Your task to perform on an android device: make emails show in primary in the gmail app Image 0: 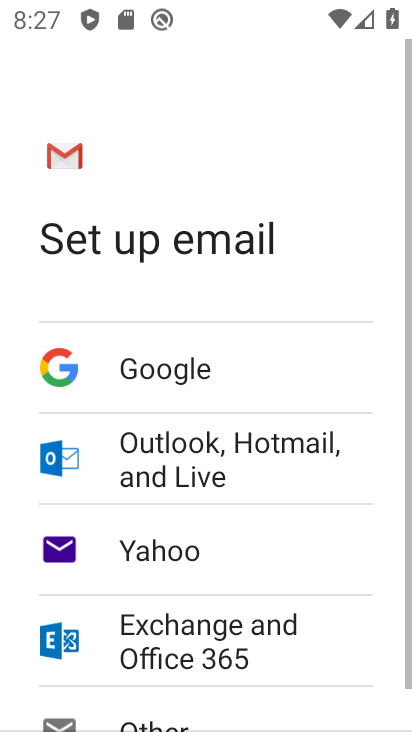
Step 0: press home button
Your task to perform on an android device: make emails show in primary in the gmail app Image 1: 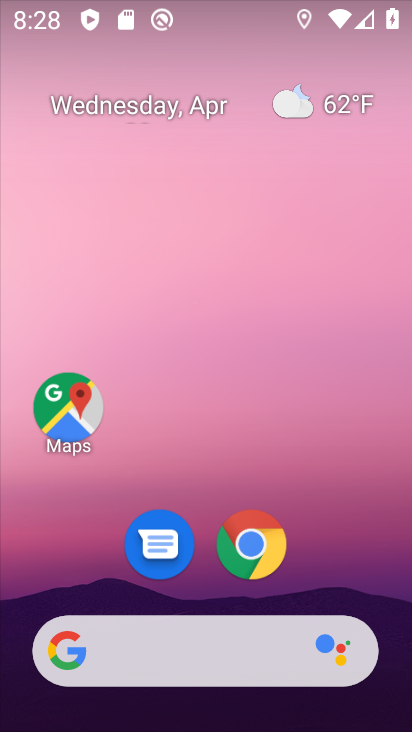
Step 1: drag from (347, 549) to (108, 67)
Your task to perform on an android device: make emails show in primary in the gmail app Image 2: 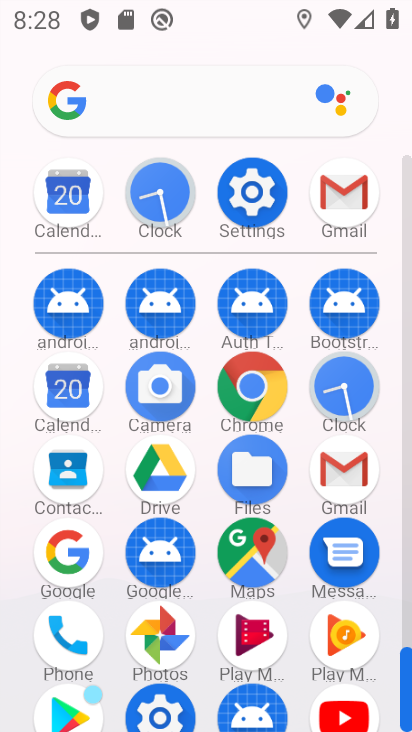
Step 2: click (339, 189)
Your task to perform on an android device: make emails show in primary in the gmail app Image 3: 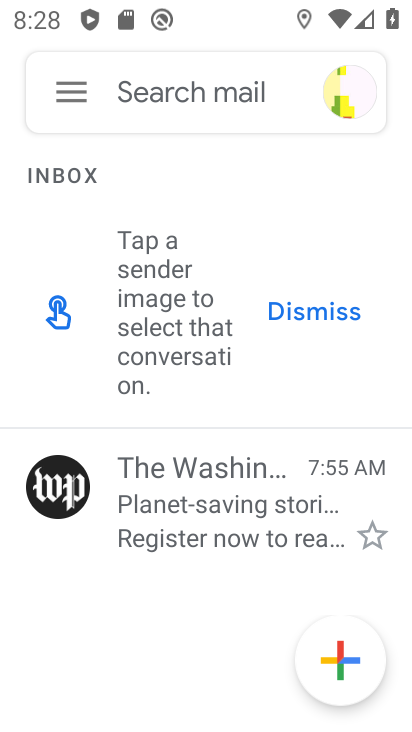
Step 3: click (70, 94)
Your task to perform on an android device: make emails show in primary in the gmail app Image 4: 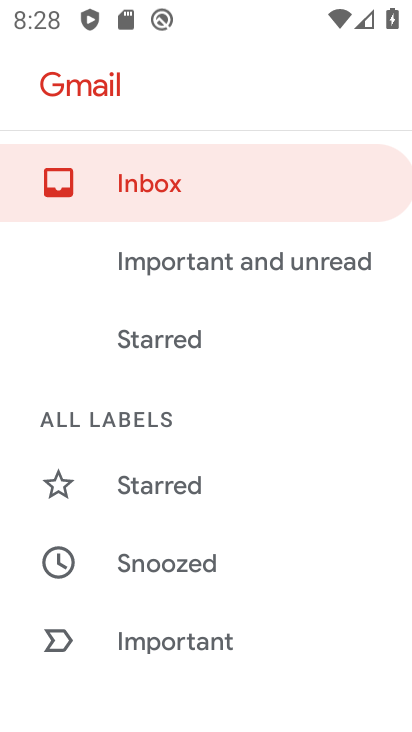
Step 4: drag from (191, 657) to (210, 160)
Your task to perform on an android device: make emails show in primary in the gmail app Image 5: 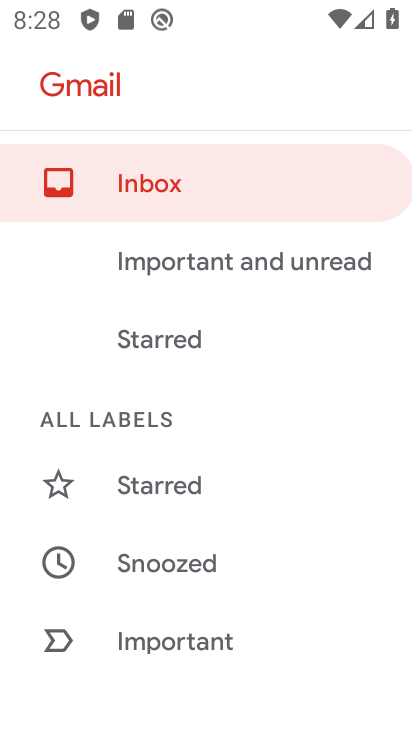
Step 5: drag from (248, 586) to (213, 179)
Your task to perform on an android device: make emails show in primary in the gmail app Image 6: 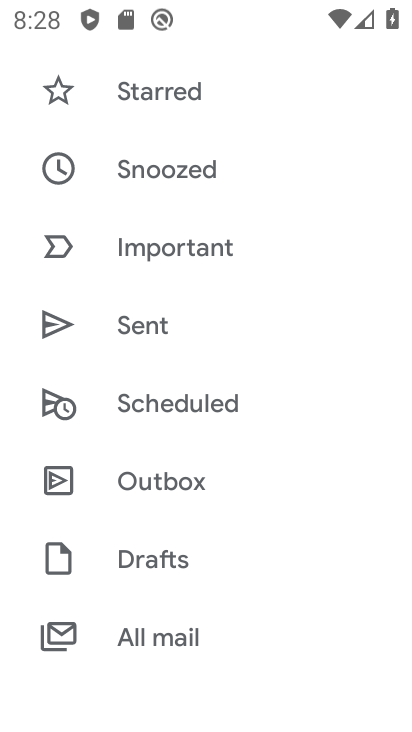
Step 6: drag from (259, 518) to (240, 111)
Your task to perform on an android device: make emails show in primary in the gmail app Image 7: 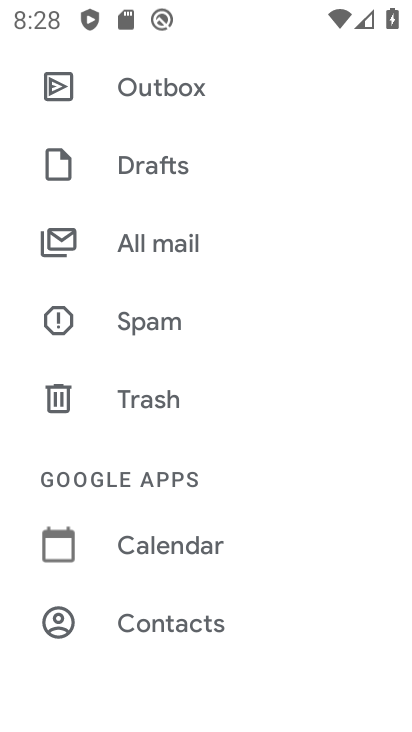
Step 7: drag from (228, 550) to (205, 153)
Your task to perform on an android device: make emails show in primary in the gmail app Image 8: 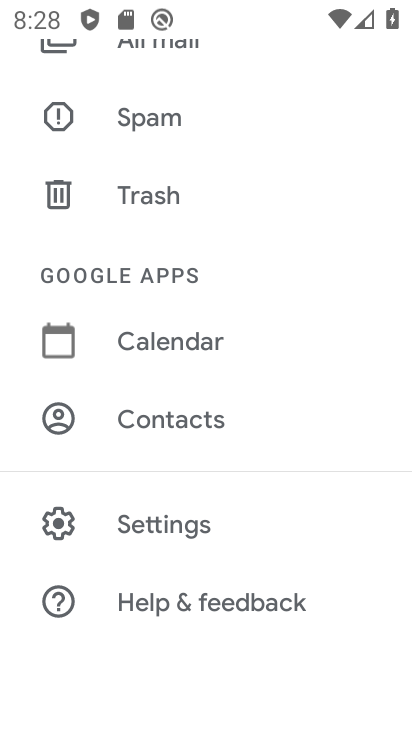
Step 8: click (162, 525)
Your task to perform on an android device: make emails show in primary in the gmail app Image 9: 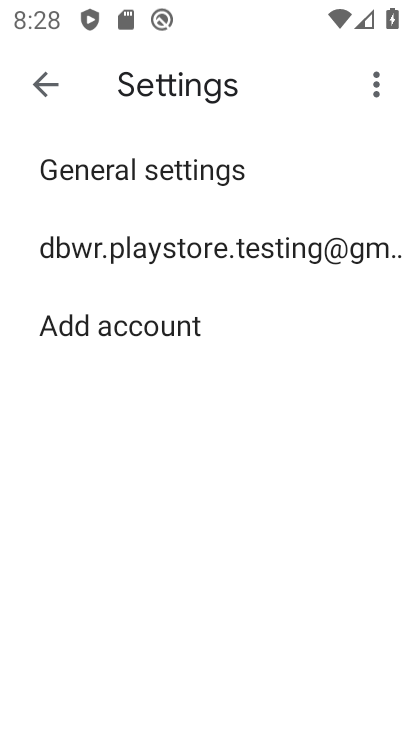
Step 9: click (158, 255)
Your task to perform on an android device: make emails show in primary in the gmail app Image 10: 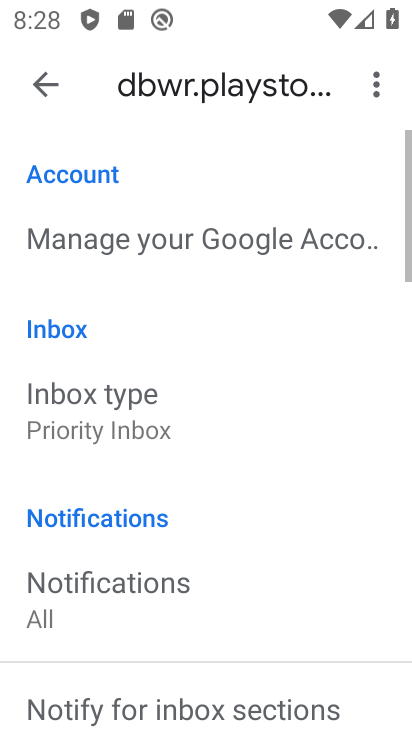
Step 10: click (112, 412)
Your task to perform on an android device: make emails show in primary in the gmail app Image 11: 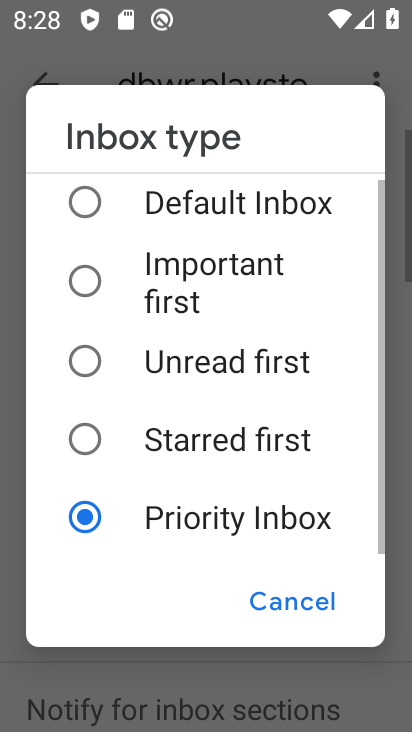
Step 11: click (124, 199)
Your task to perform on an android device: make emails show in primary in the gmail app Image 12: 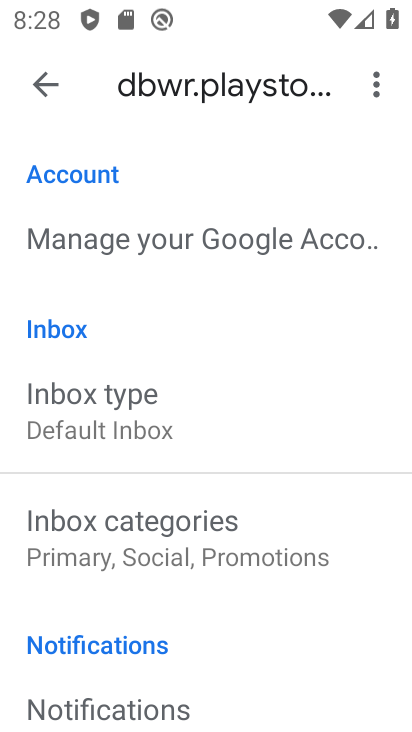
Step 12: click (49, 85)
Your task to perform on an android device: make emails show in primary in the gmail app Image 13: 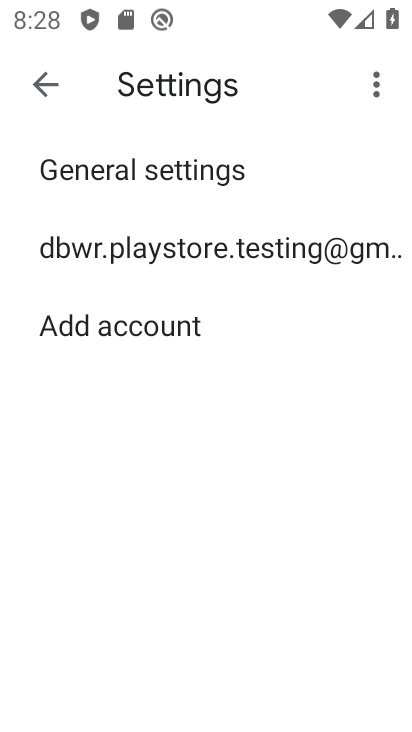
Step 13: click (49, 85)
Your task to perform on an android device: make emails show in primary in the gmail app Image 14: 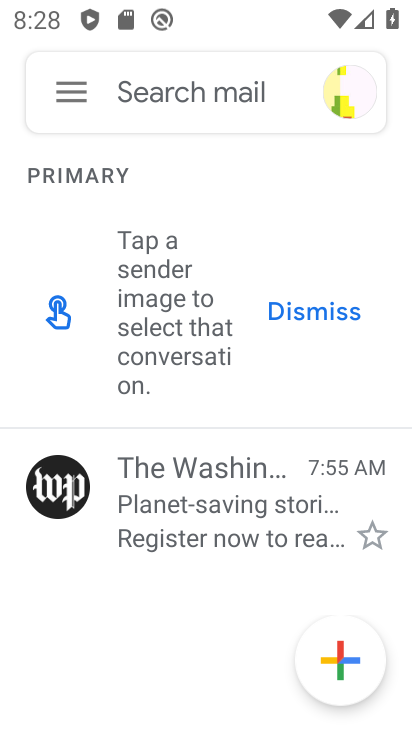
Step 14: click (69, 90)
Your task to perform on an android device: make emails show in primary in the gmail app Image 15: 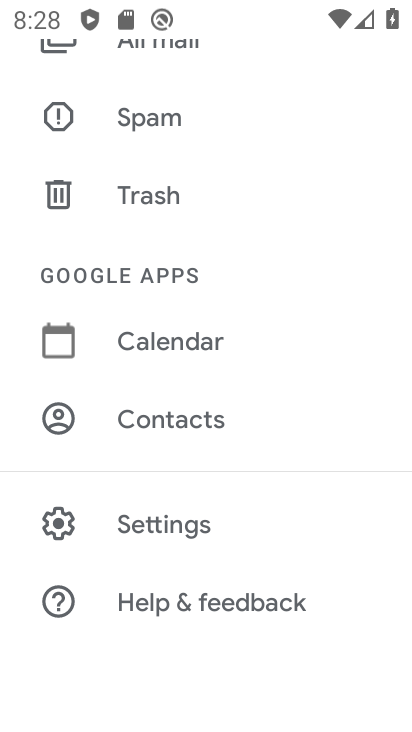
Step 15: drag from (301, 299) to (274, 638)
Your task to perform on an android device: make emails show in primary in the gmail app Image 16: 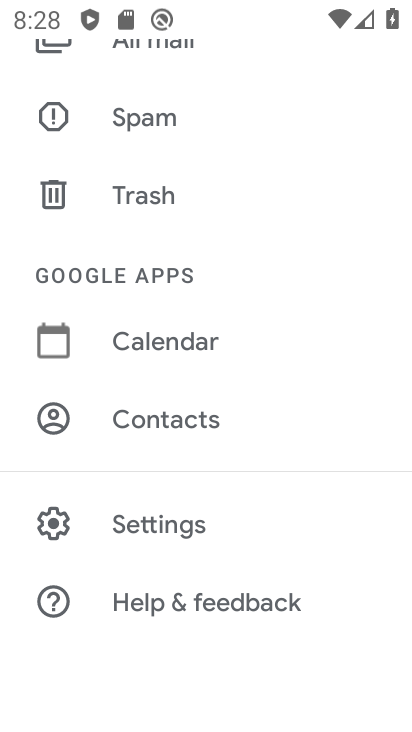
Step 16: drag from (220, 193) to (245, 599)
Your task to perform on an android device: make emails show in primary in the gmail app Image 17: 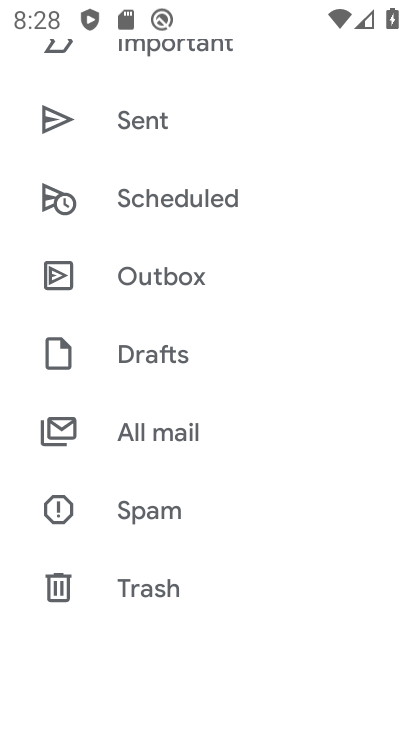
Step 17: drag from (235, 210) to (204, 605)
Your task to perform on an android device: make emails show in primary in the gmail app Image 18: 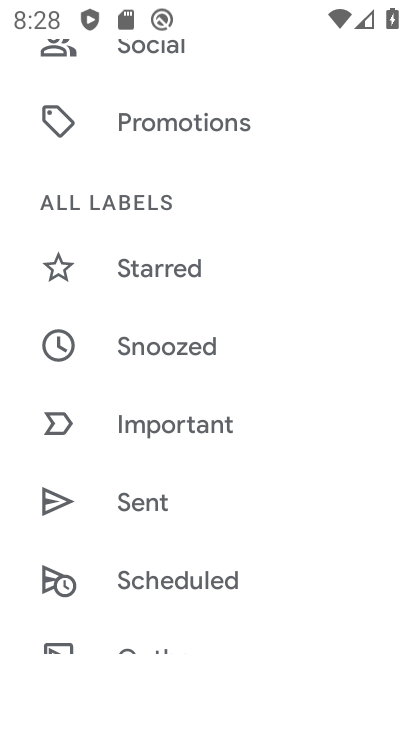
Step 18: drag from (217, 144) to (182, 627)
Your task to perform on an android device: make emails show in primary in the gmail app Image 19: 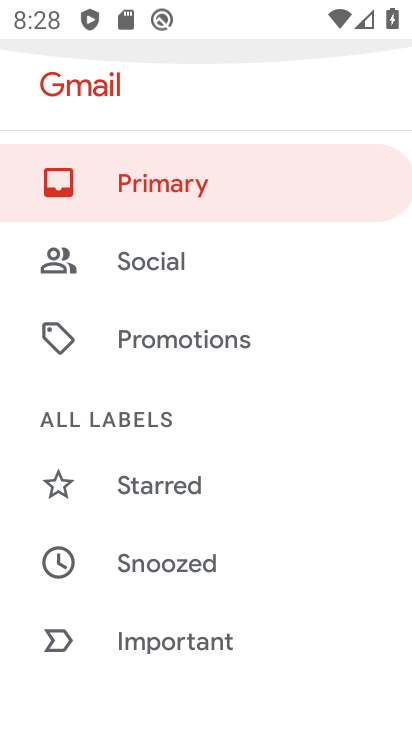
Step 19: click (221, 185)
Your task to perform on an android device: make emails show in primary in the gmail app Image 20: 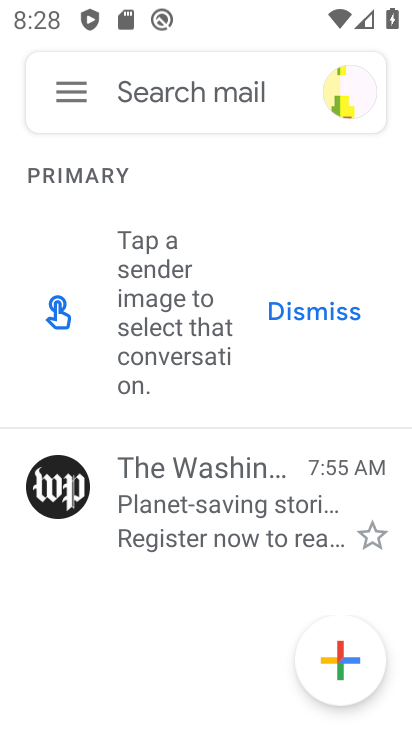
Step 20: task complete